Your task to perform on an android device: change the clock display to analog Image 0: 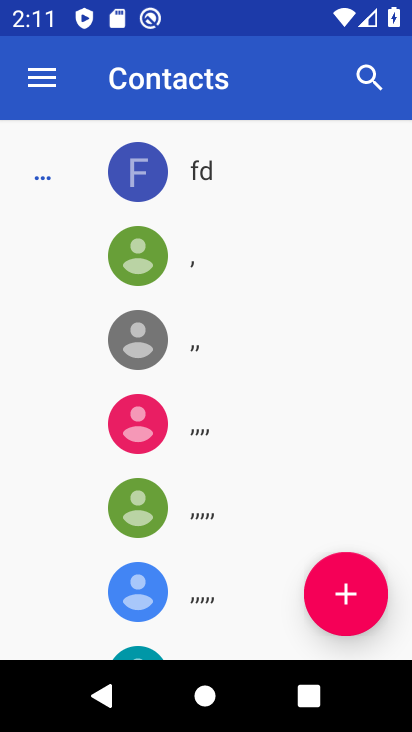
Step 0: press back button
Your task to perform on an android device: change the clock display to analog Image 1: 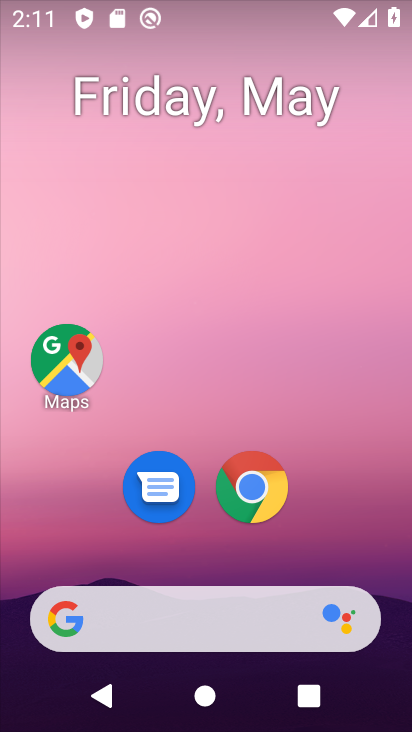
Step 1: drag from (207, 508) to (294, 0)
Your task to perform on an android device: change the clock display to analog Image 2: 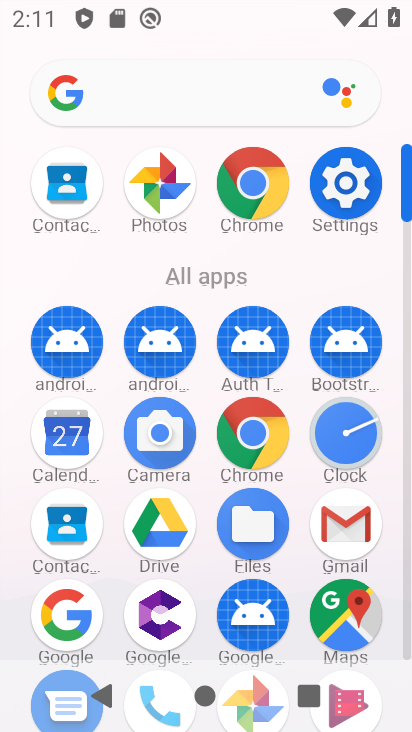
Step 2: click (344, 446)
Your task to perform on an android device: change the clock display to analog Image 3: 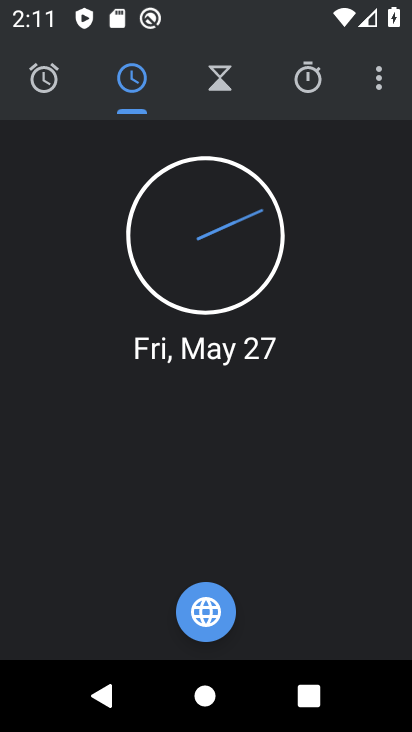
Step 3: click (376, 75)
Your task to perform on an android device: change the clock display to analog Image 4: 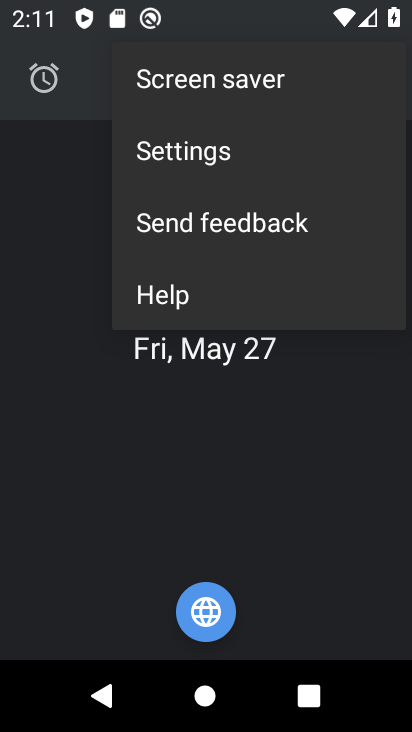
Step 4: click (233, 141)
Your task to perform on an android device: change the clock display to analog Image 5: 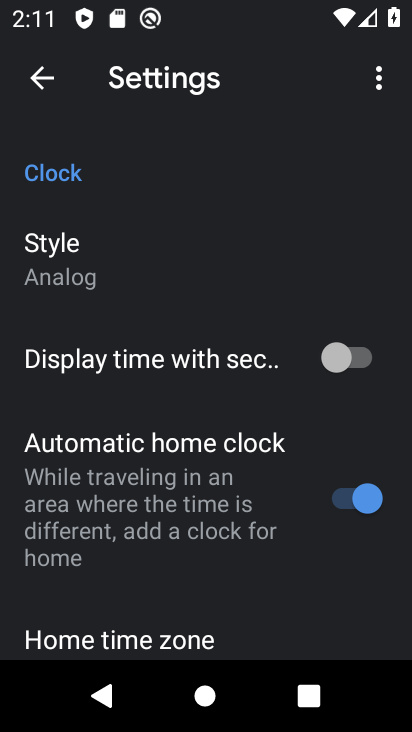
Step 5: task complete